Your task to perform on an android device: turn off airplane mode Image 0: 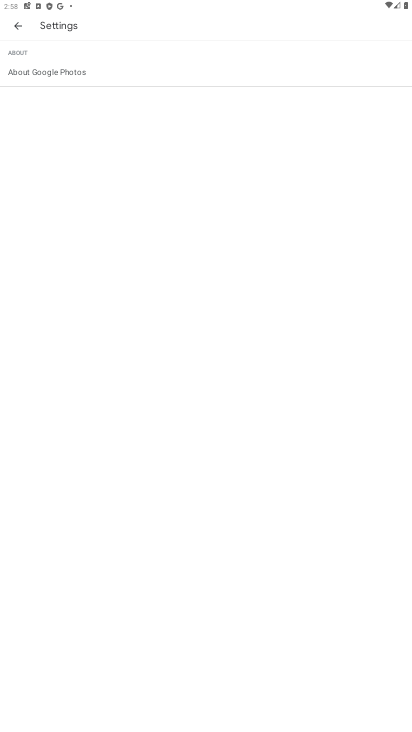
Step 0: drag from (356, 6) to (335, 553)
Your task to perform on an android device: turn off airplane mode Image 1: 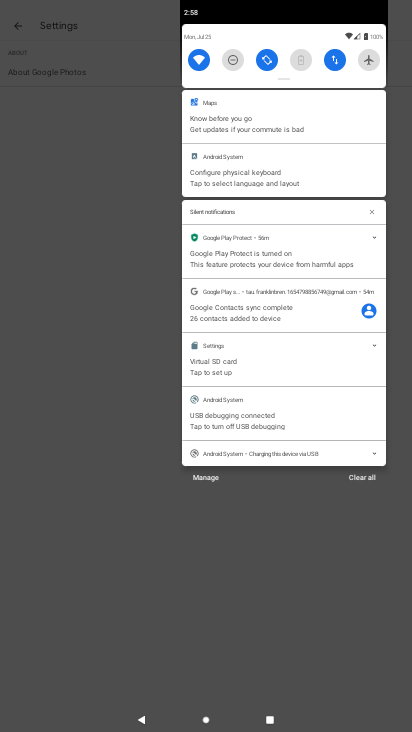
Step 1: task complete